Your task to perform on an android device: turn smart compose on in the gmail app Image 0: 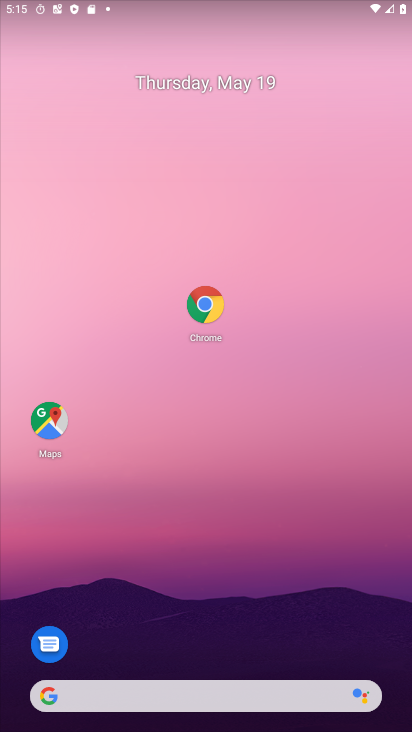
Step 0: drag from (235, 670) to (250, 80)
Your task to perform on an android device: turn smart compose on in the gmail app Image 1: 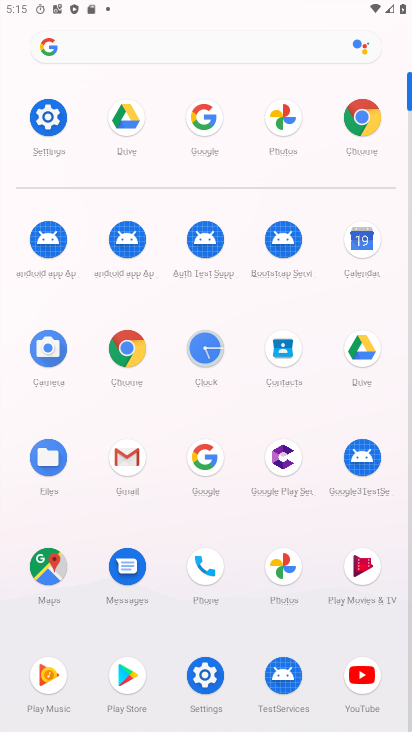
Step 1: click (126, 462)
Your task to perform on an android device: turn smart compose on in the gmail app Image 2: 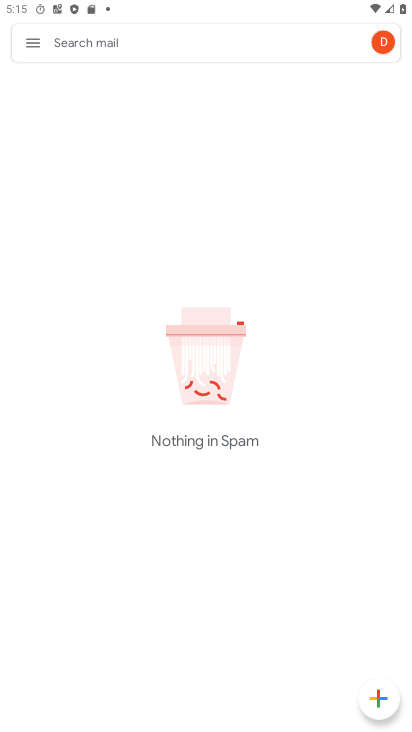
Step 2: click (24, 36)
Your task to perform on an android device: turn smart compose on in the gmail app Image 3: 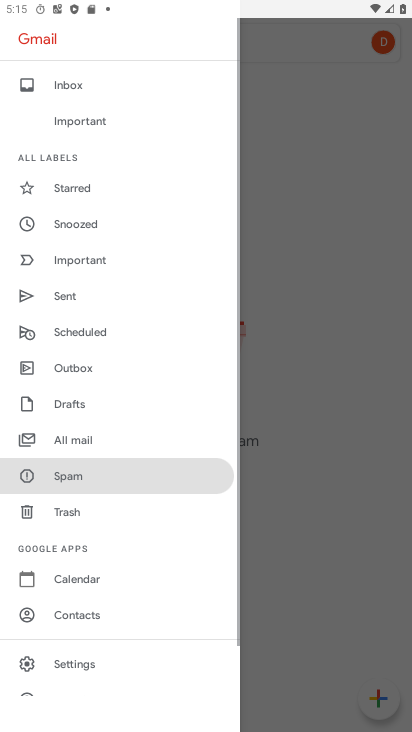
Step 3: click (73, 664)
Your task to perform on an android device: turn smart compose on in the gmail app Image 4: 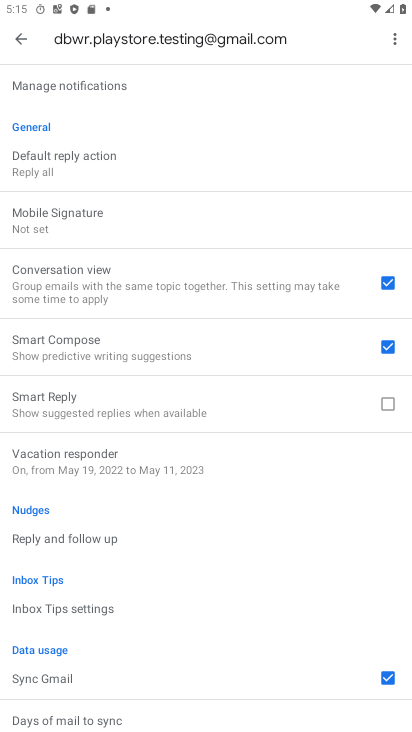
Step 4: task complete